Your task to perform on an android device: Go to display settings Image 0: 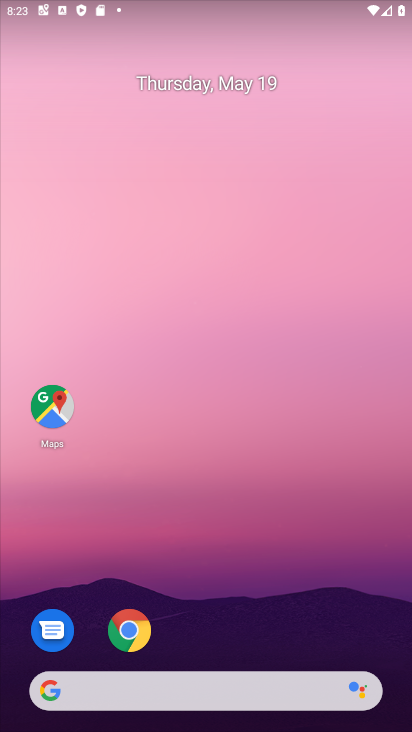
Step 0: drag from (390, 645) to (352, 80)
Your task to perform on an android device: Go to display settings Image 1: 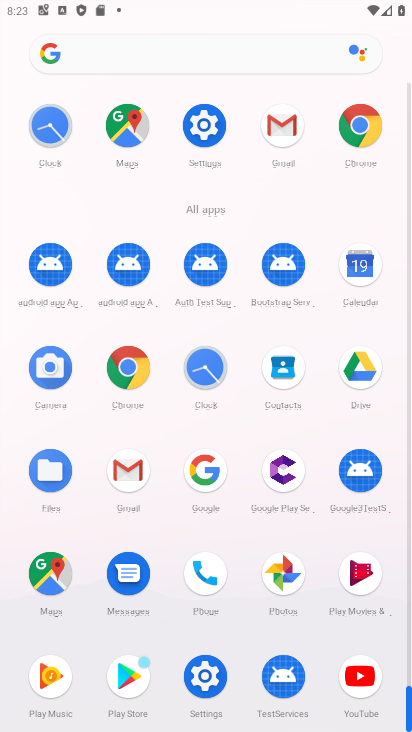
Step 1: click (203, 672)
Your task to perform on an android device: Go to display settings Image 2: 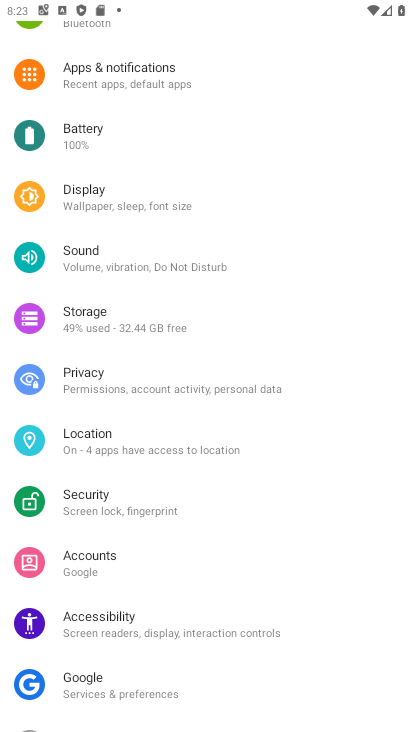
Step 2: click (99, 372)
Your task to perform on an android device: Go to display settings Image 3: 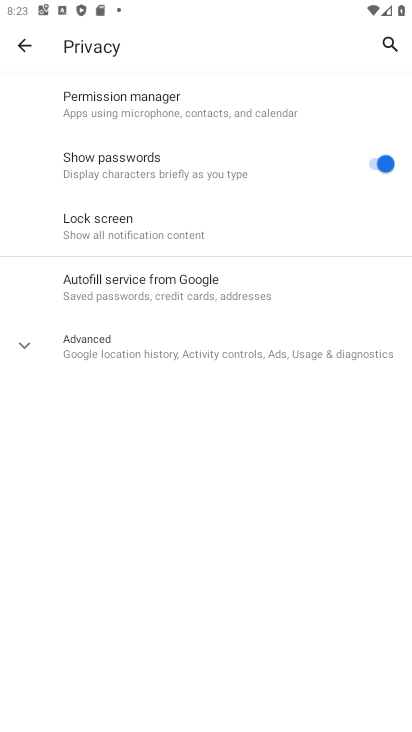
Step 3: click (23, 342)
Your task to perform on an android device: Go to display settings Image 4: 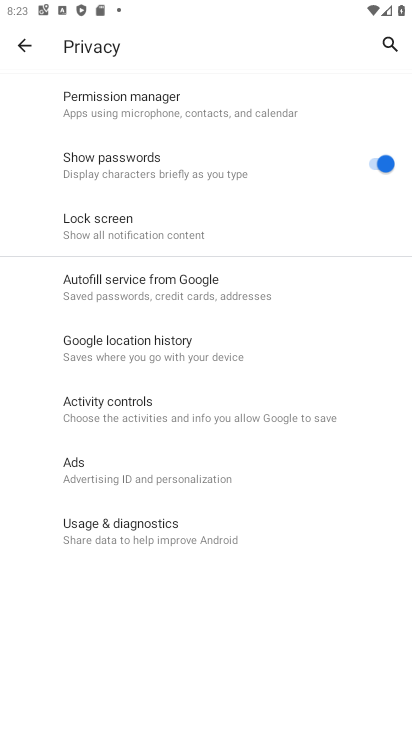
Step 4: task complete